Your task to perform on an android device: turn on javascript in the chrome app Image 0: 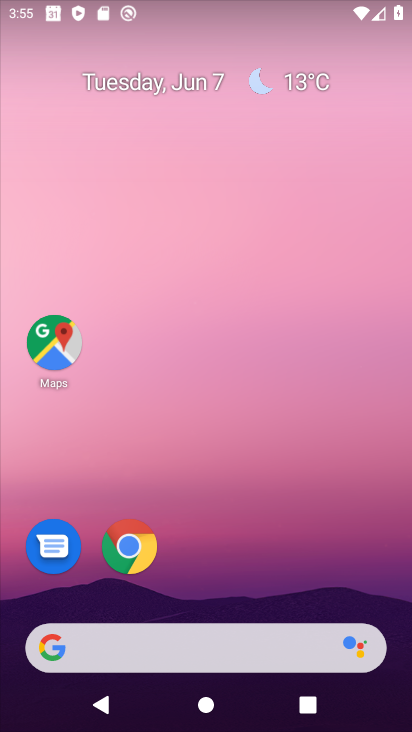
Step 0: click (130, 557)
Your task to perform on an android device: turn on javascript in the chrome app Image 1: 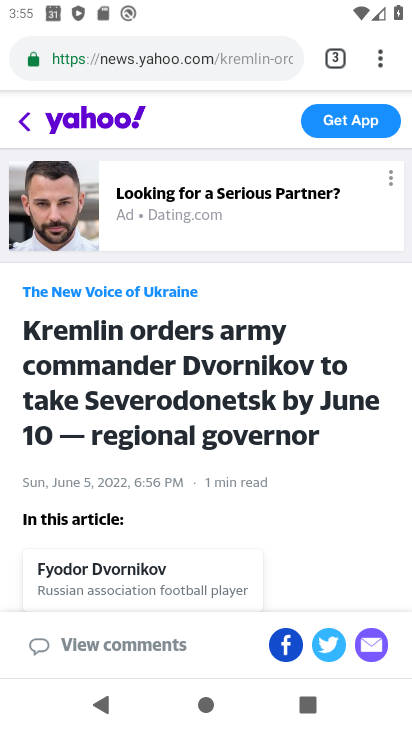
Step 1: click (388, 69)
Your task to perform on an android device: turn on javascript in the chrome app Image 2: 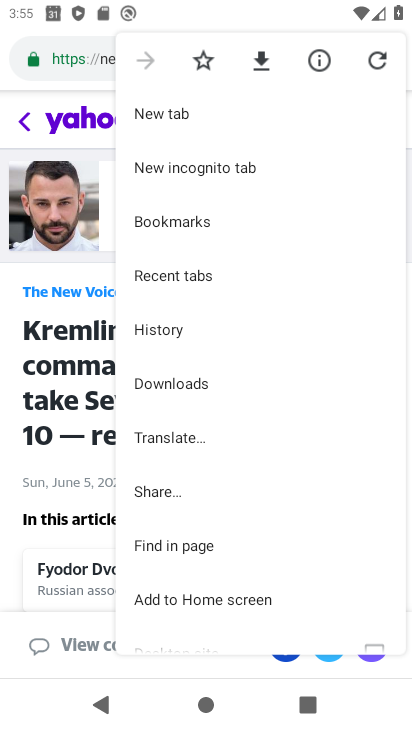
Step 2: drag from (188, 575) to (211, 13)
Your task to perform on an android device: turn on javascript in the chrome app Image 3: 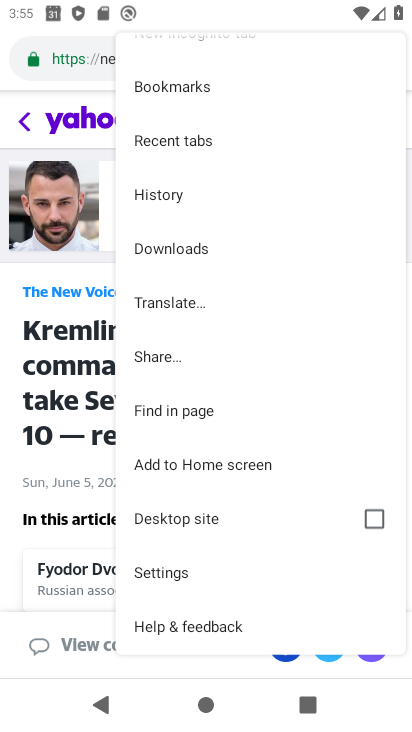
Step 3: click (197, 582)
Your task to perform on an android device: turn on javascript in the chrome app Image 4: 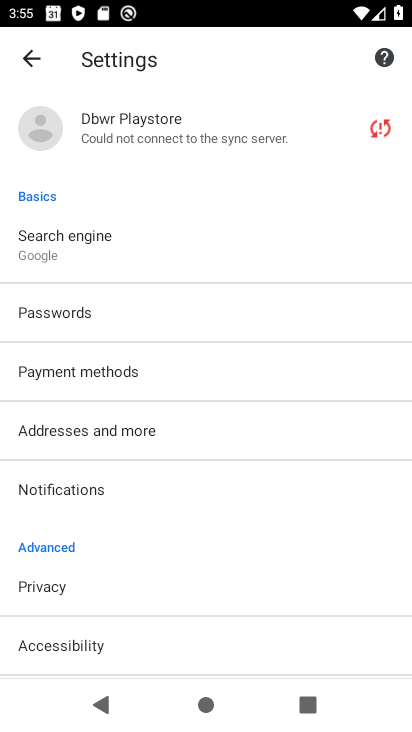
Step 4: drag from (82, 618) to (241, 112)
Your task to perform on an android device: turn on javascript in the chrome app Image 5: 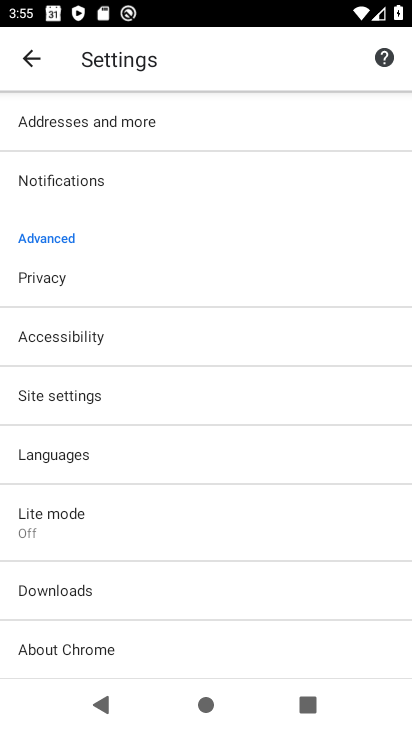
Step 5: click (130, 398)
Your task to perform on an android device: turn on javascript in the chrome app Image 6: 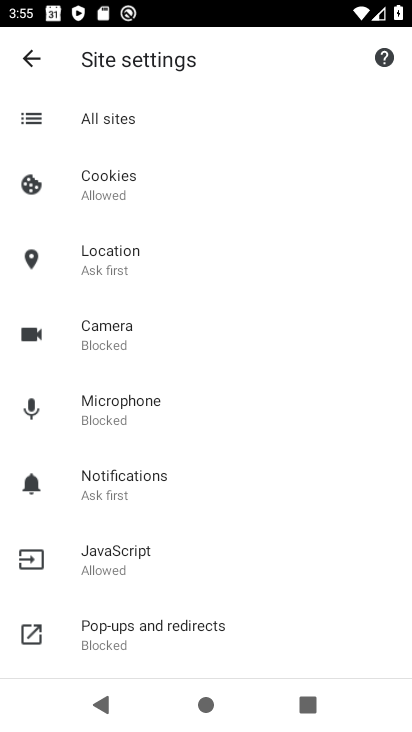
Step 6: click (147, 580)
Your task to perform on an android device: turn on javascript in the chrome app Image 7: 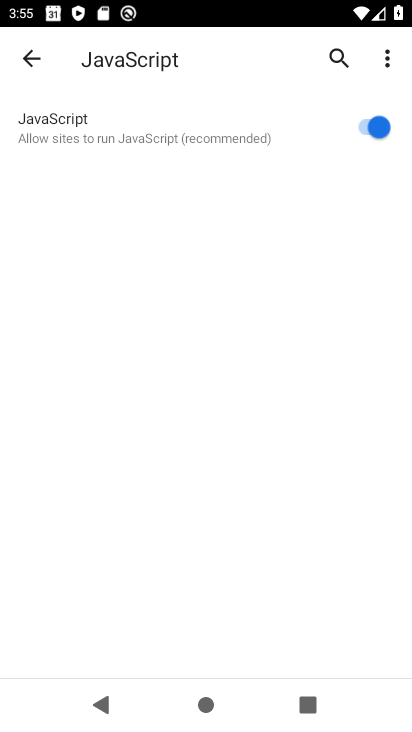
Step 7: task complete